Your task to perform on an android device: Find coffee shops on Maps Image 0: 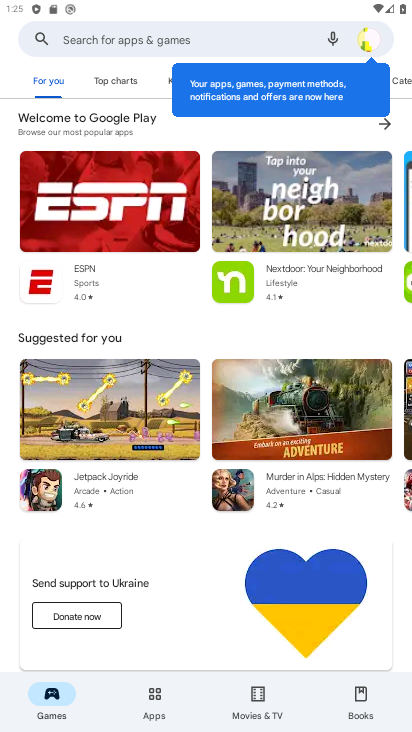
Step 0: press home button
Your task to perform on an android device: Find coffee shops on Maps Image 1: 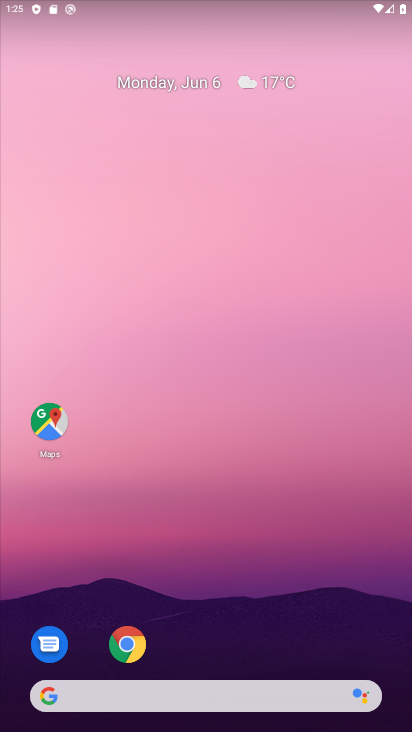
Step 1: drag from (323, 424) to (327, 208)
Your task to perform on an android device: Find coffee shops on Maps Image 2: 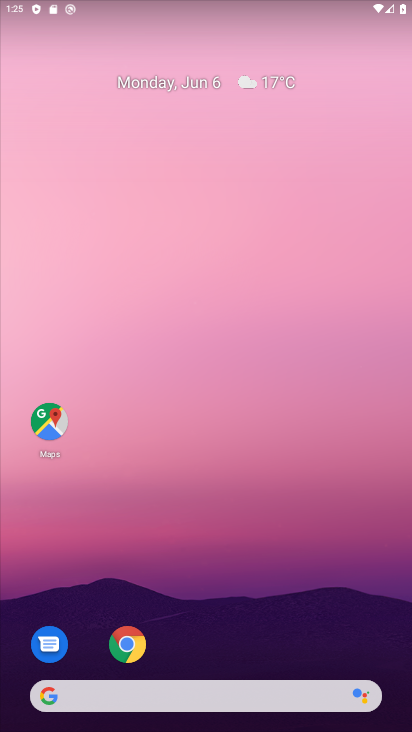
Step 2: drag from (337, 657) to (302, 132)
Your task to perform on an android device: Find coffee shops on Maps Image 3: 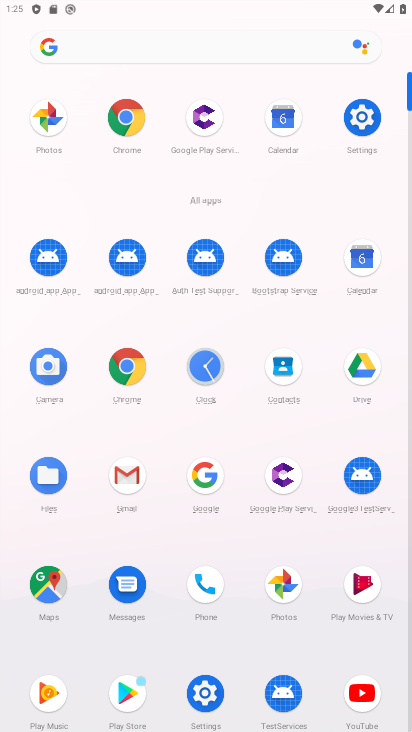
Step 3: click (28, 606)
Your task to perform on an android device: Find coffee shops on Maps Image 4: 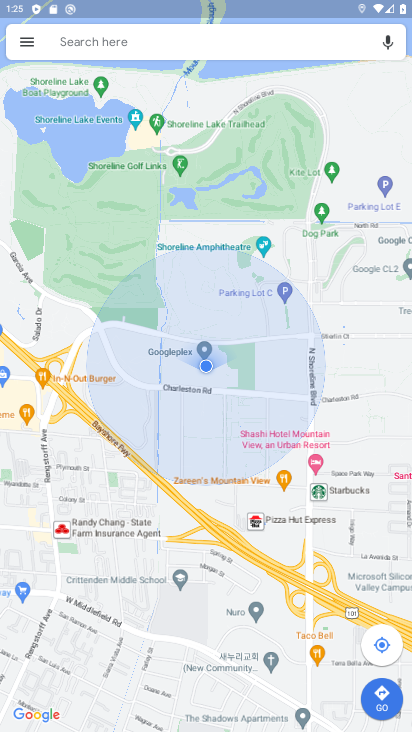
Step 4: click (169, 39)
Your task to perform on an android device: Find coffee shops on Maps Image 5: 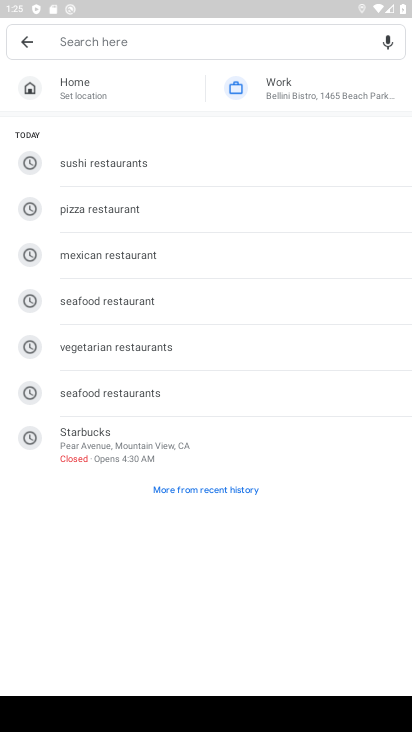
Step 5: type "coffee shops"
Your task to perform on an android device: Find coffee shops on Maps Image 6: 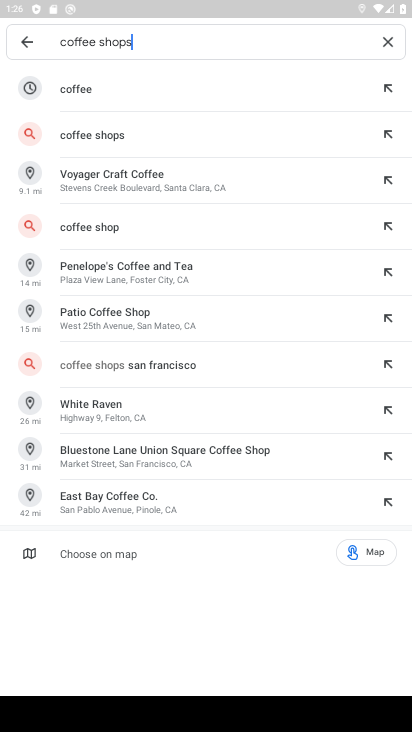
Step 6: click (130, 142)
Your task to perform on an android device: Find coffee shops on Maps Image 7: 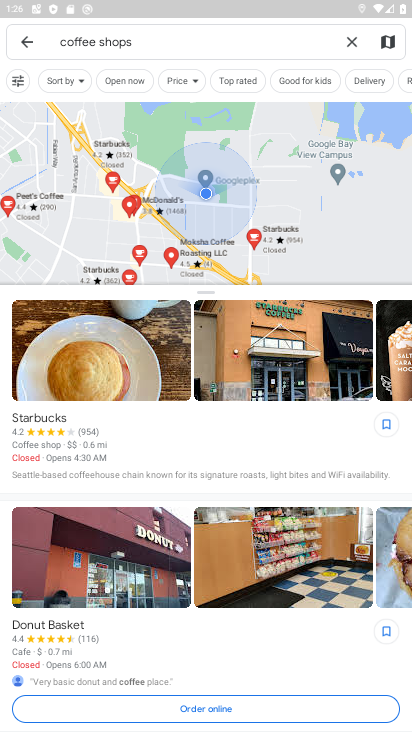
Step 7: task complete